Your task to perform on an android device: Show me popular videos on Youtube Image 0: 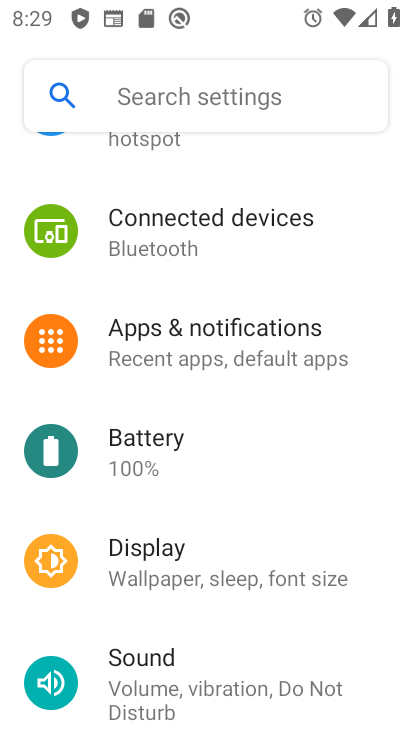
Step 0: press home button
Your task to perform on an android device: Show me popular videos on Youtube Image 1: 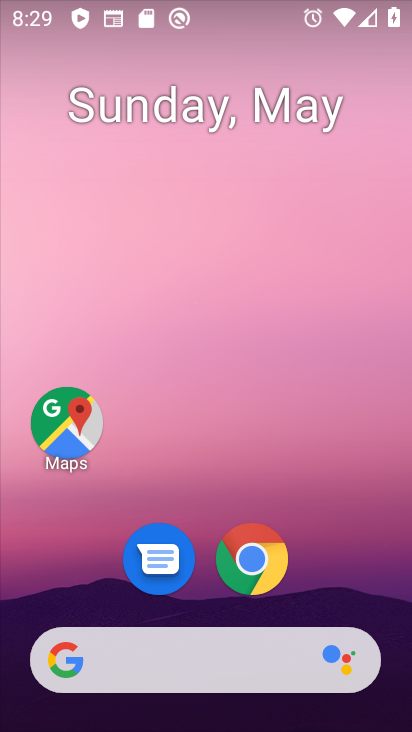
Step 1: drag from (96, 574) to (282, 300)
Your task to perform on an android device: Show me popular videos on Youtube Image 2: 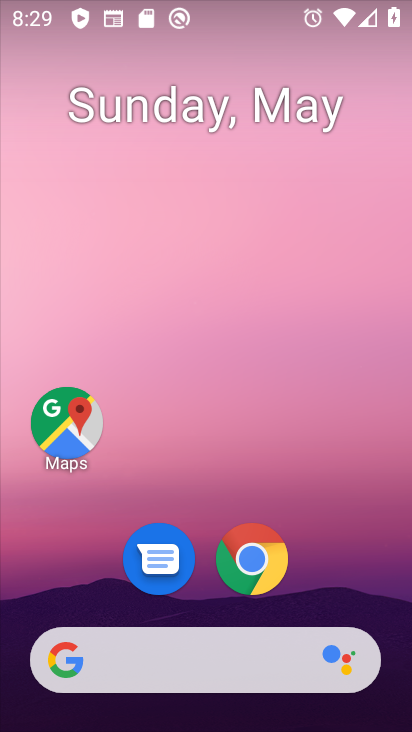
Step 2: drag from (1, 672) to (373, 158)
Your task to perform on an android device: Show me popular videos on Youtube Image 3: 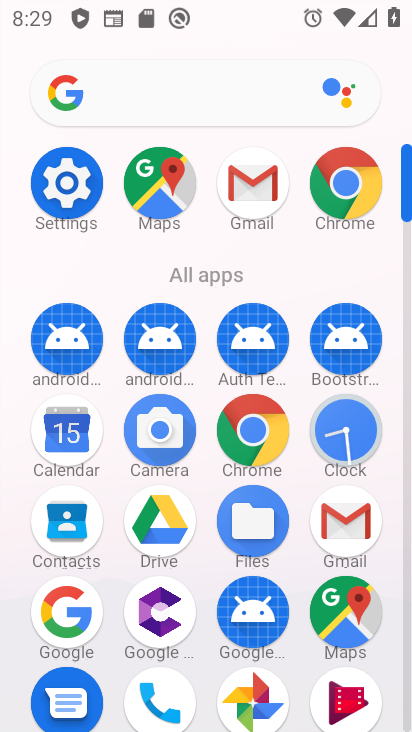
Step 3: drag from (64, 635) to (277, 284)
Your task to perform on an android device: Show me popular videos on Youtube Image 4: 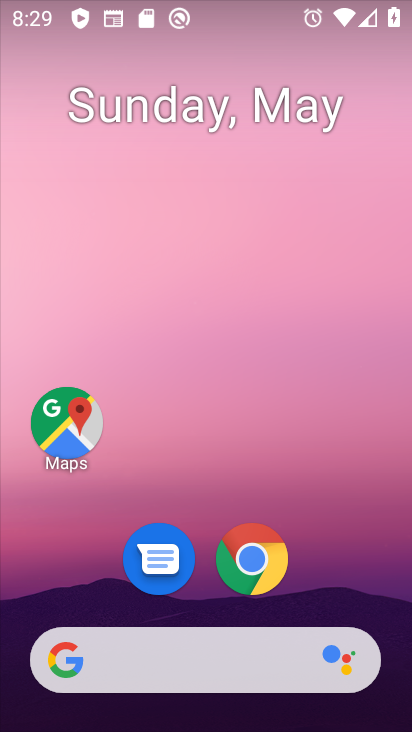
Step 4: click (5, 613)
Your task to perform on an android device: Show me popular videos on Youtube Image 5: 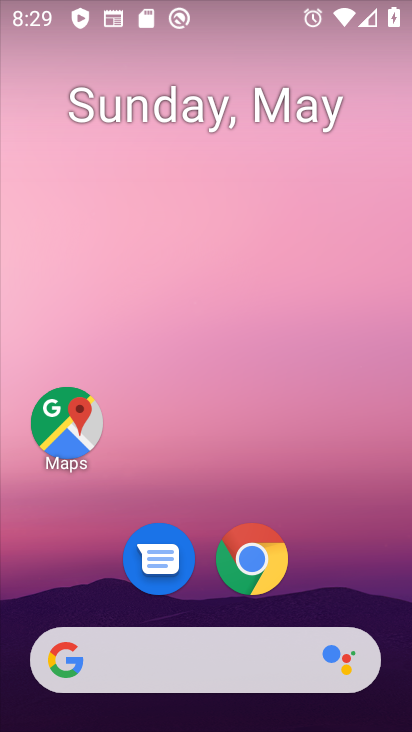
Step 5: drag from (53, 505) to (276, 148)
Your task to perform on an android device: Show me popular videos on Youtube Image 6: 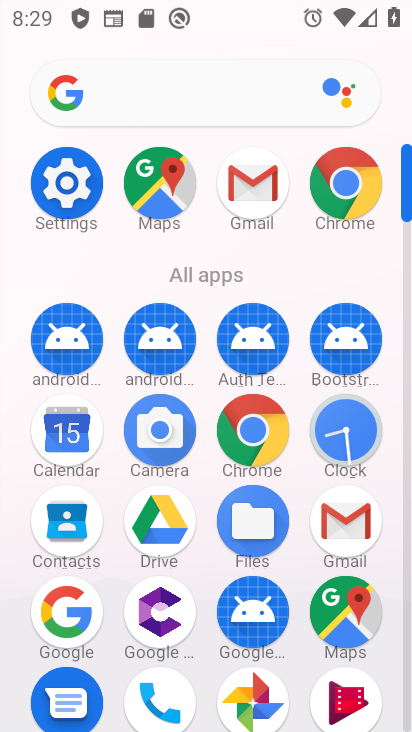
Step 6: drag from (53, 525) to (262, 194)
Your task to perform on an android device: Show me popular videos on Youtube Image 7: 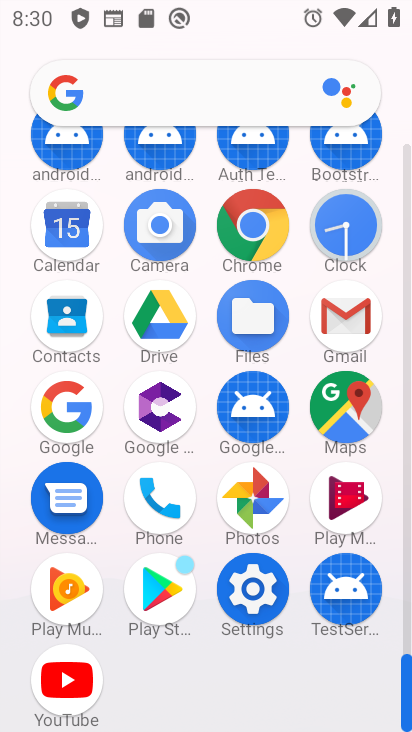
Step 7: click (60, 667)
Your task to perform on an android device: Show me popular videos on Youtube Image 8: 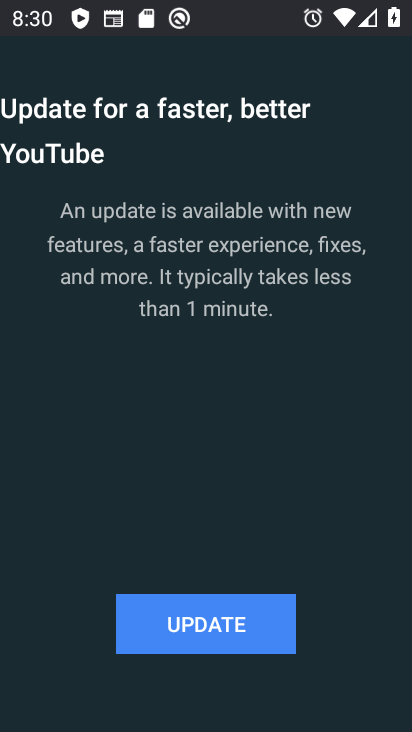
Step 8: task complete